Your task to perform on an android device: Open Maps and search for coffee Image 0: 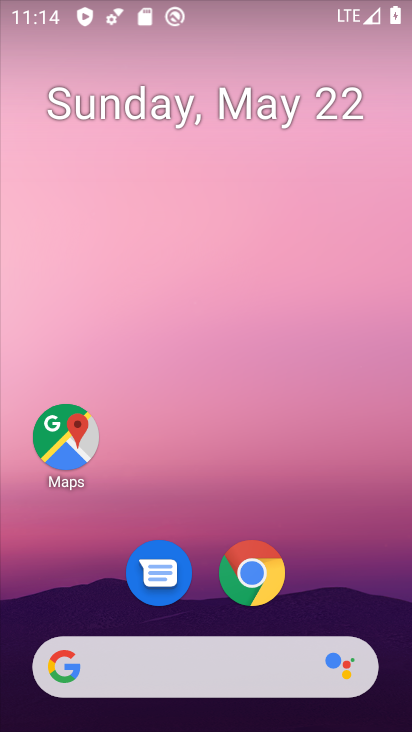
Step 0: click (56, 434)
Your task to perform on an android device: Open Maps and search for coffee Image 1: 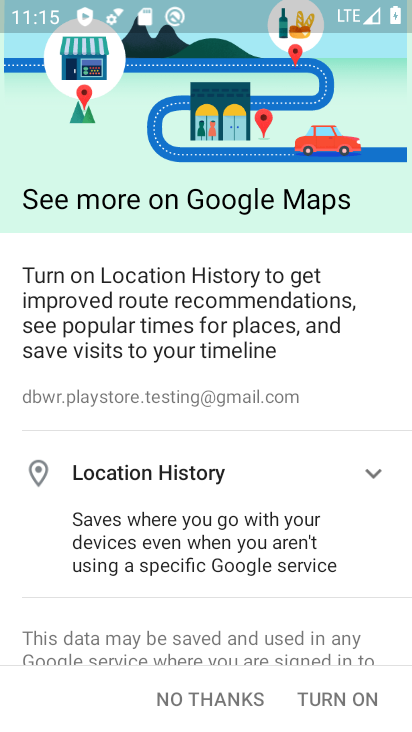
Step 1: click (200, 705)
Your task to perform on an android device: Open Maps and search for coffee Image 2: 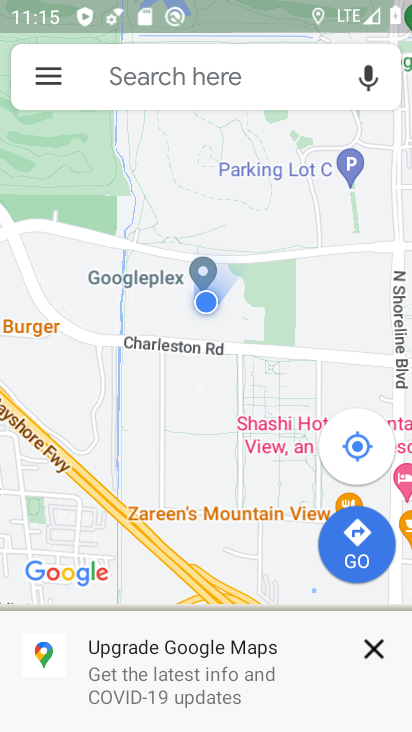
Step 2: click (181, 85)
Your task to perform on an android device: Open Maps and search for coffee Image 3: 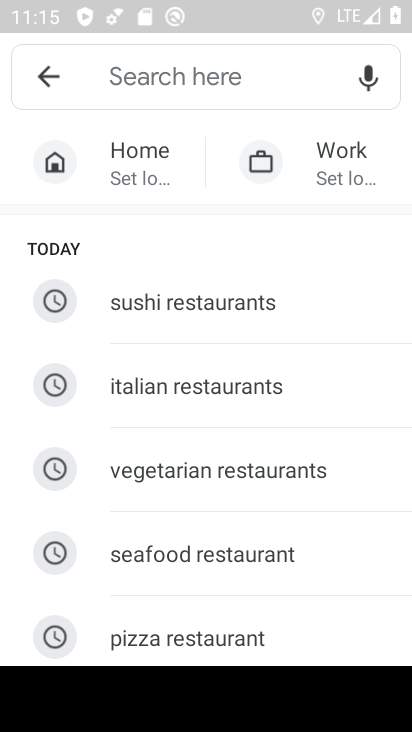
Step 3: type "coffee"
Your task to perform on an android device: Open Maps and search for coffee Image 4: 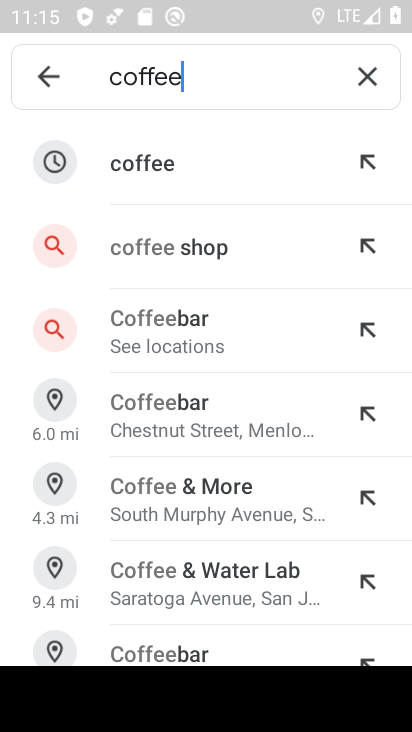
Step 4: click (192, 175)
Your task to perform on an android device: Open Maps and search for coffee Image 5: 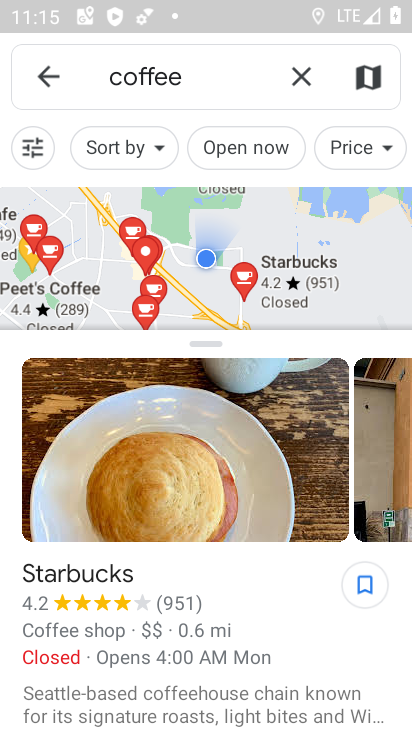
Step 5: task complete